Your task to perform on an android device: find which apps use the phone's location Image 0: 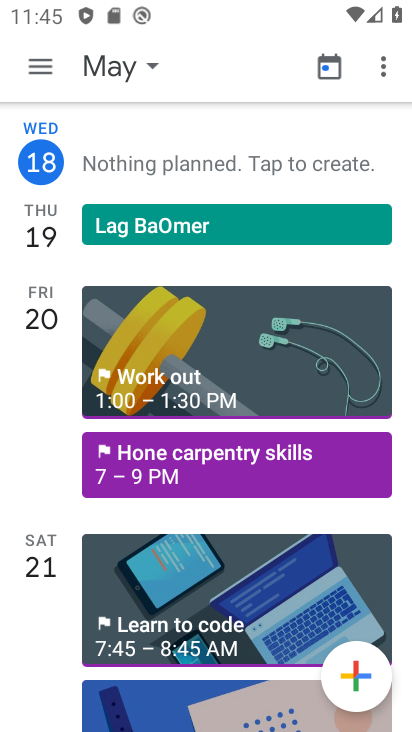
Step 0: press home button
Your task to perform on an android device: find which apps use the phone's location Image 1: 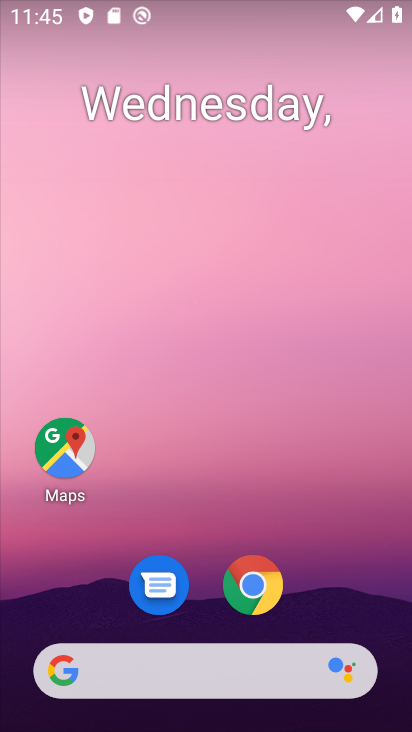
Step 1: drag from (308, 535) to (277, 38)
Your task to perform on an android device: find which apps use the phone's location Image 2: 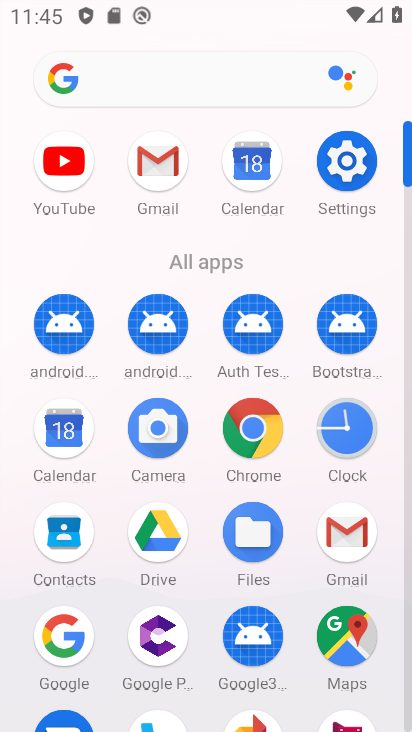
Step 2: click (345, 173)
Your task to perform on an android device: find which apps use the phone's location Image 3: 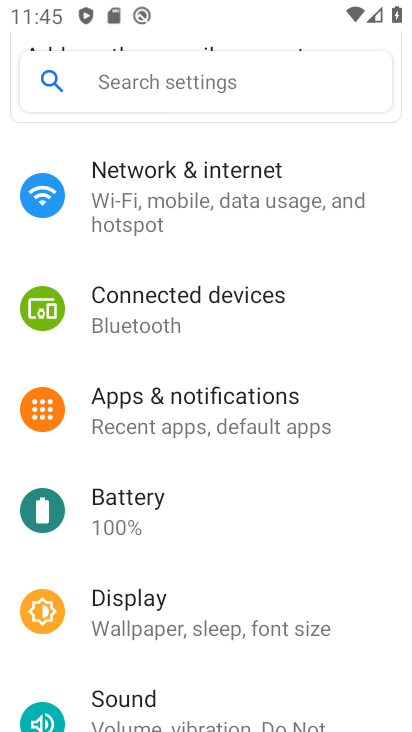
Step 3: drag from (242, 542) to (252, 102)
Your task to perform on an android device: find which apps use the phone's location Image 4: 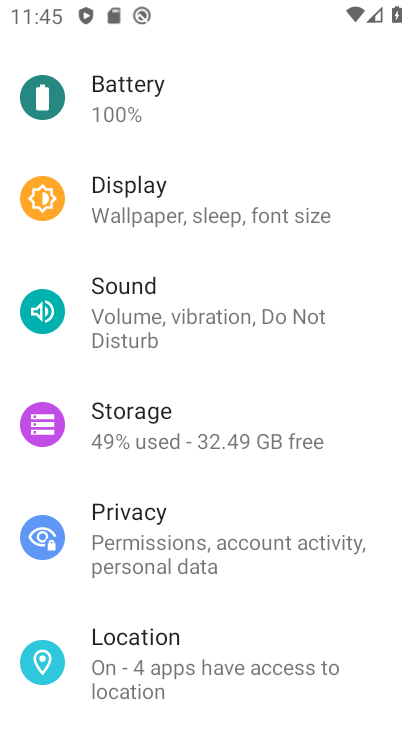
Step 4: click (246, 650)
Your task to perform on an android device: find which apps use the phone's location Image 5: 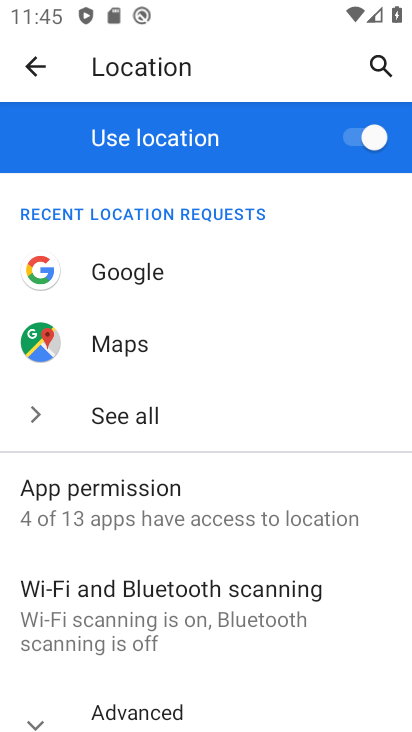
Step 5: click (186, 499)
Your task to perform on an android device: find which apps use the phone's location Image 6: 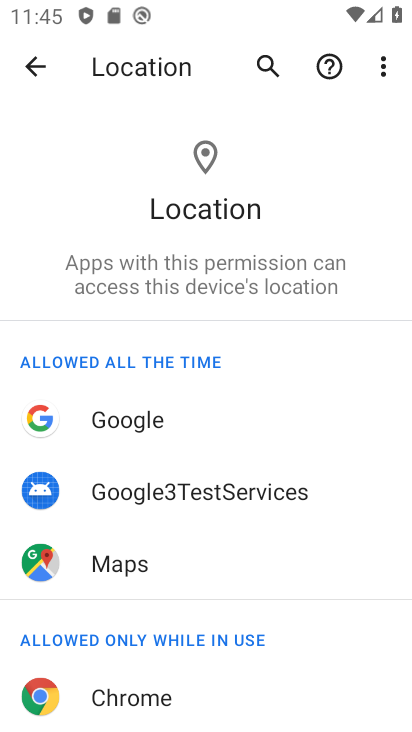
Step 6: task complete